Your task to perform on an android device: install app "The Home Depot" Image 0: 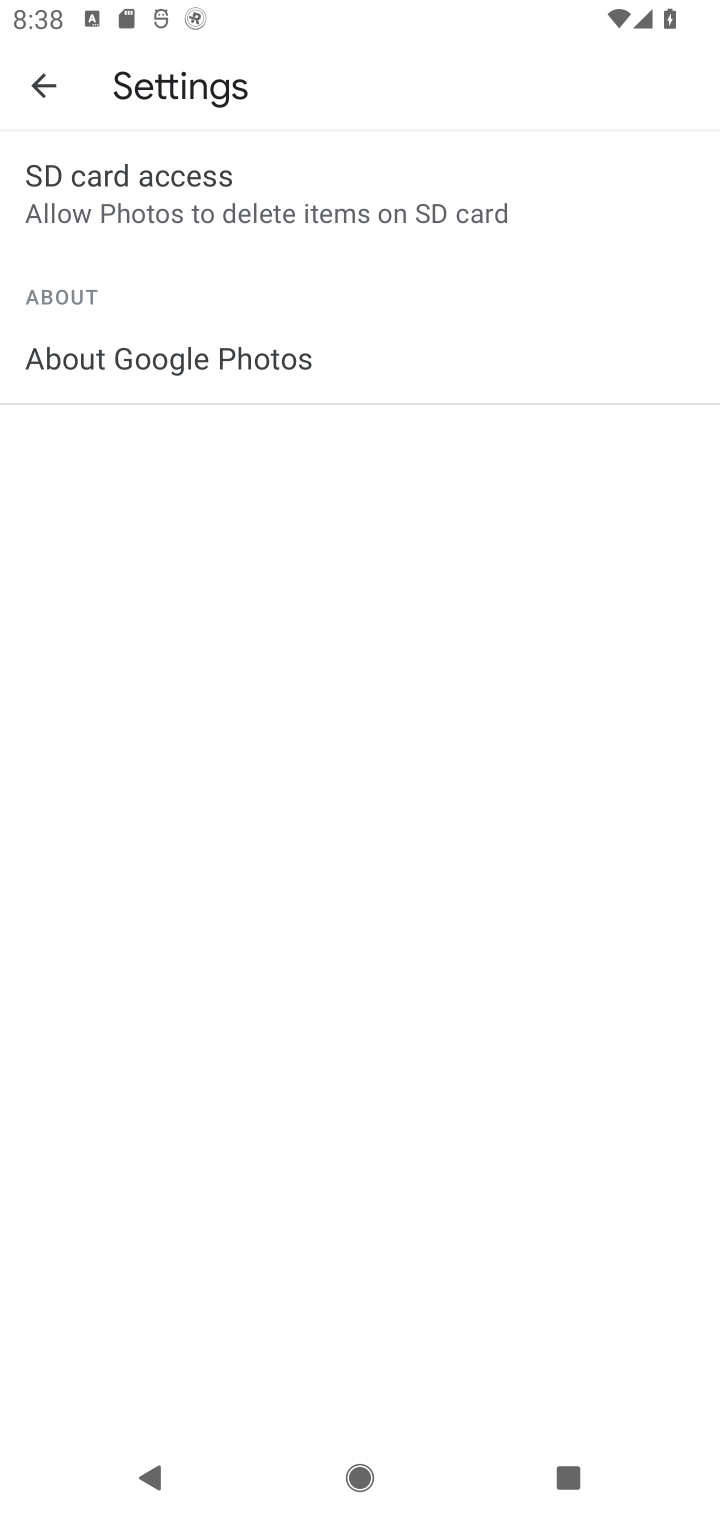
Step 0: click (44, 76)
Your task to perform on an android device: install app "The Home Depot" Image 1: 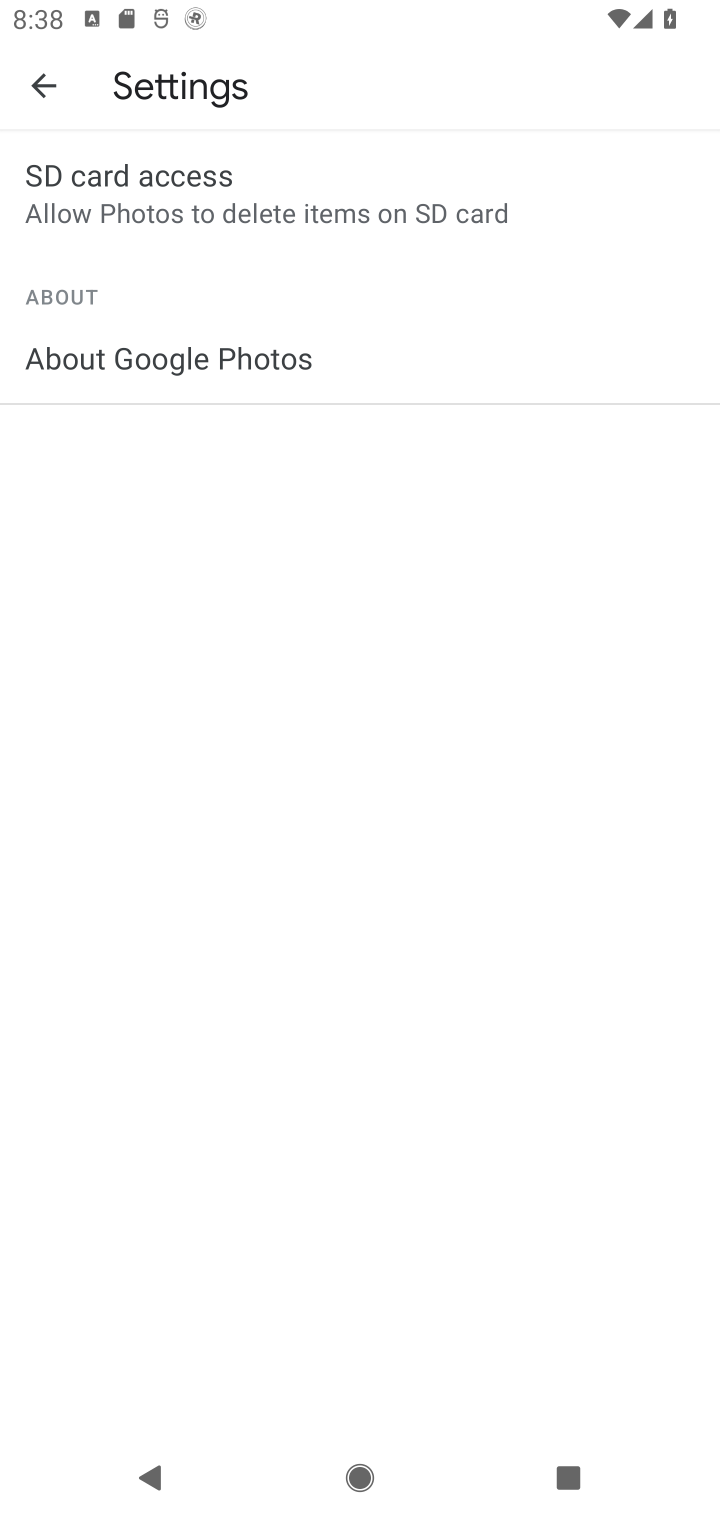
Step 1: press home button
Your task to perform on an android device: install app "The Home Depot" Image 2: 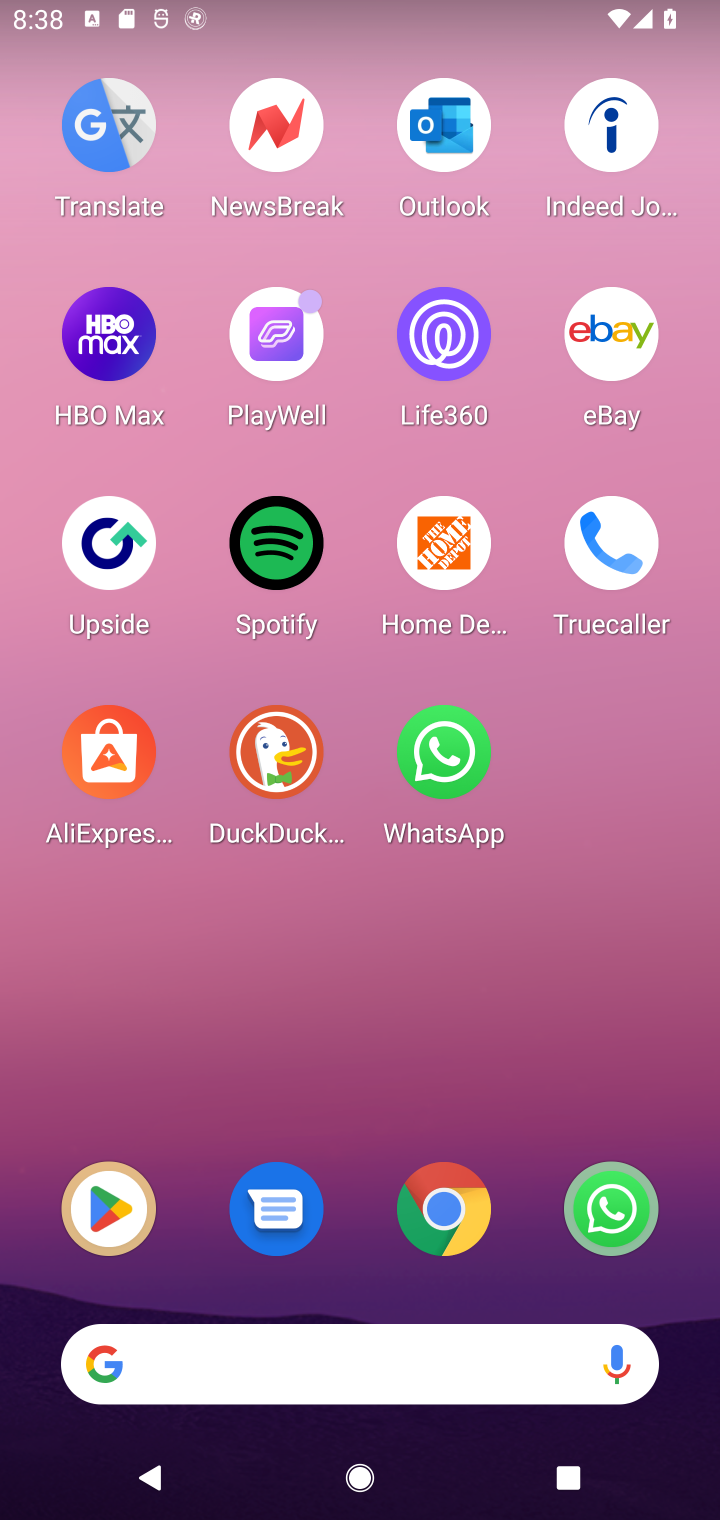
Step 2: click (124, 1224)
Your task to perform on an android device: install app "The Home Depot" Image 3: 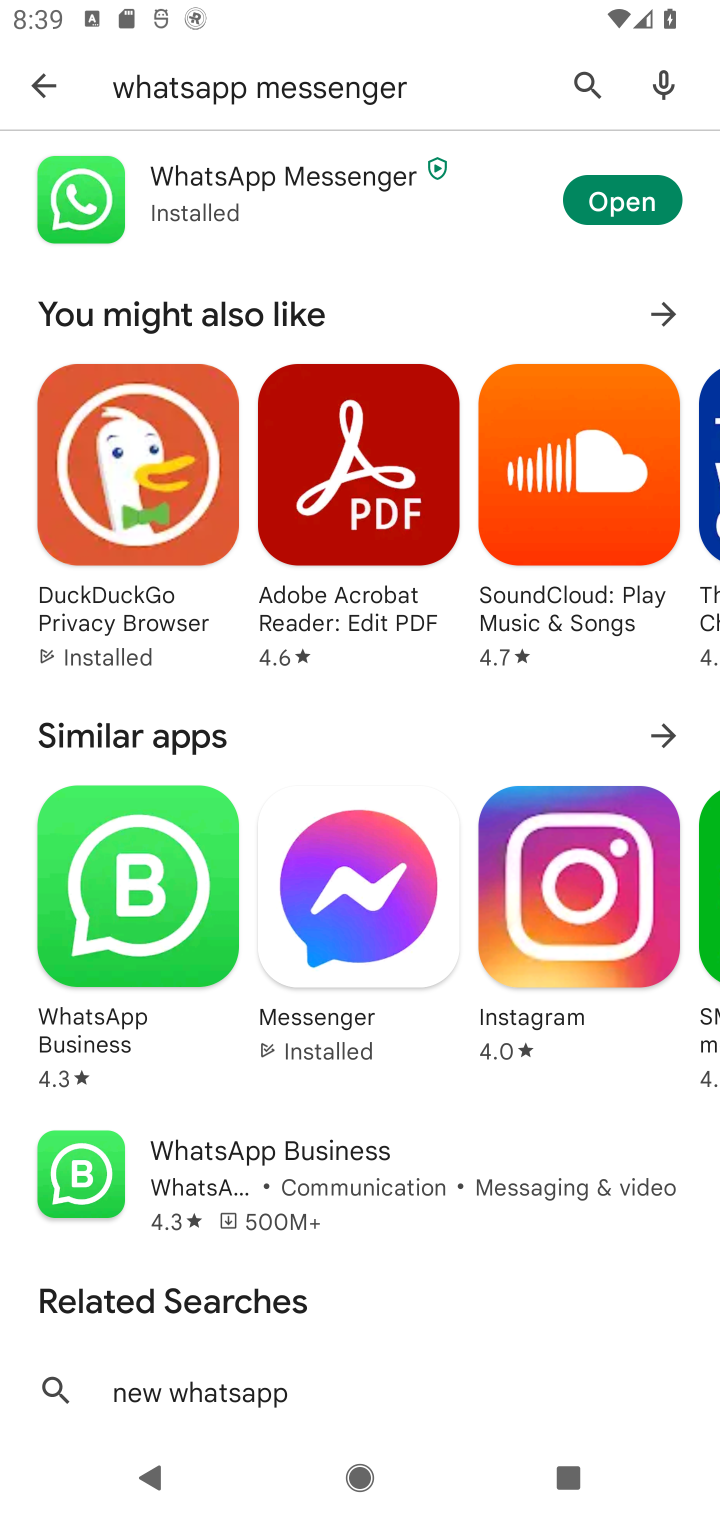
Step 3: click (579, 73)
Your task to perform on an android device: install app "The Home Depot" Image 4: 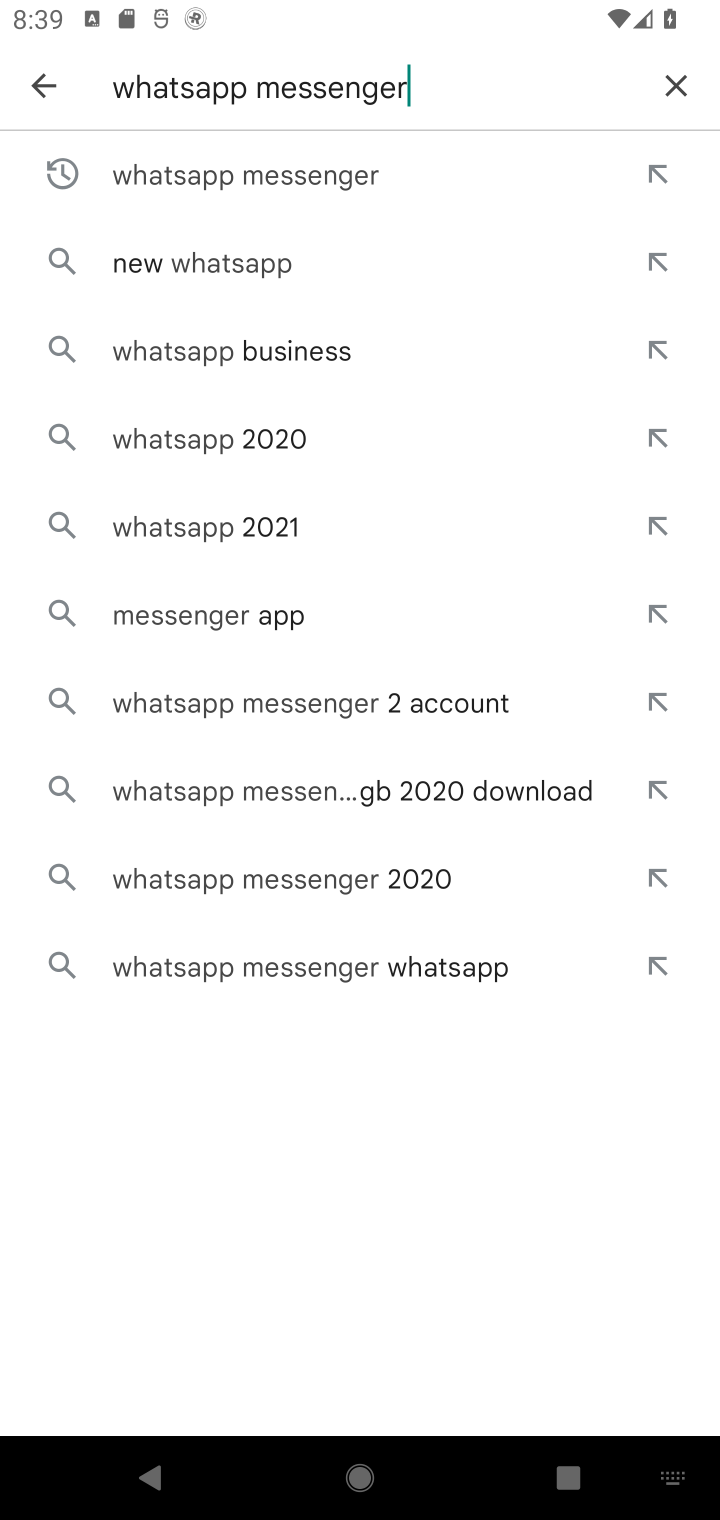
Step 4: click (673, 82)
Your task to perform on an android device: install app "The Home Depot" Image 5: 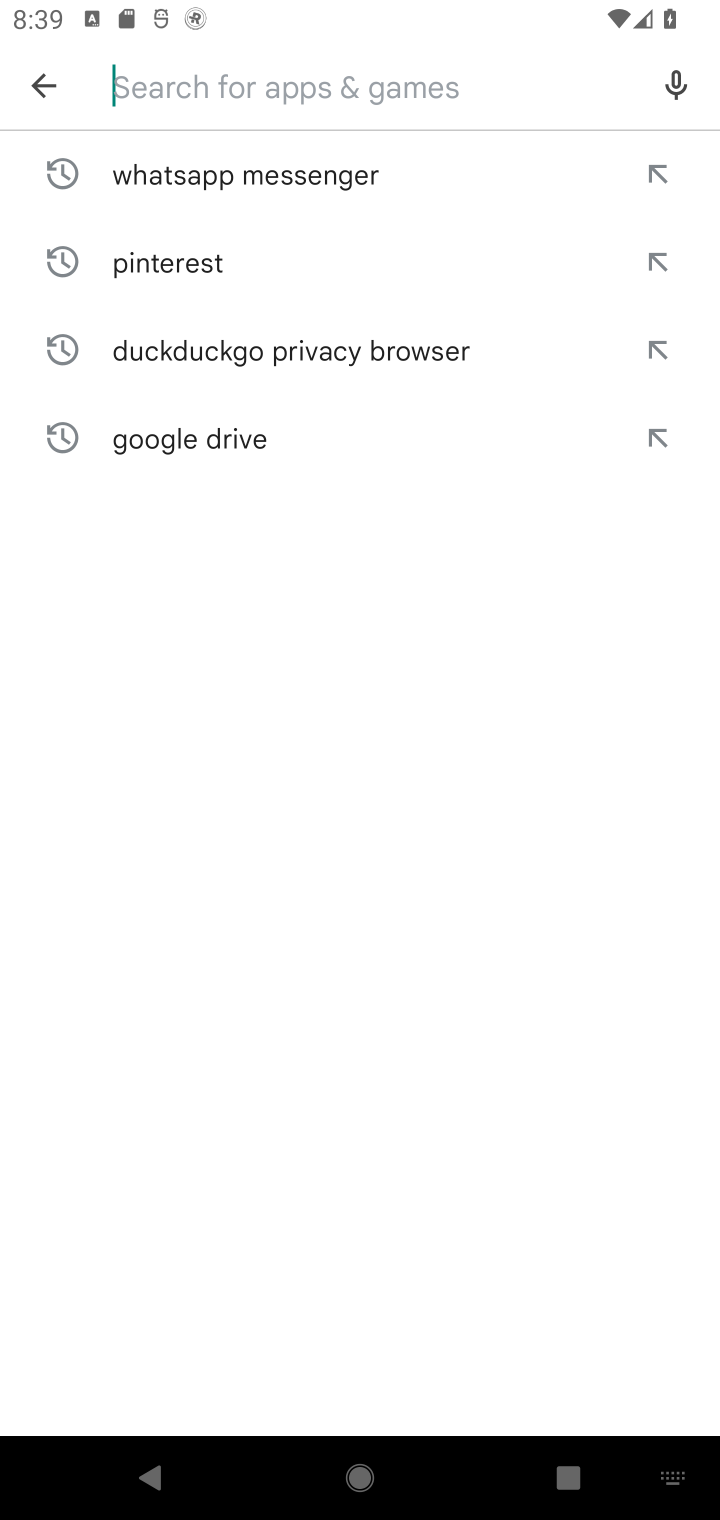
Step 5: type "The Home Depot"
Your task to perform on an android device: install app "The Home Depot" Image 6: 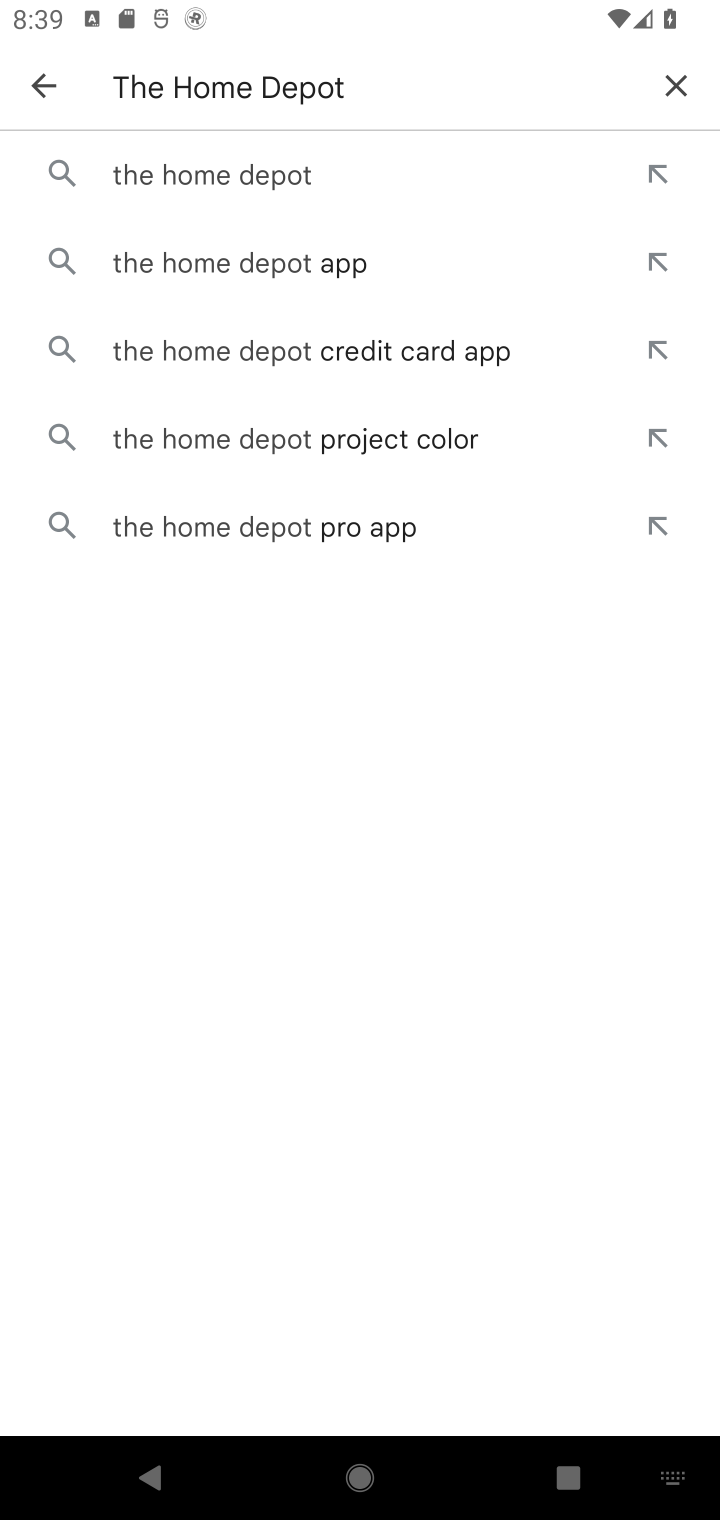
Step 6: click (221, 181)
Your task to perform on an android device: install app "The Home Depot" Image 7: 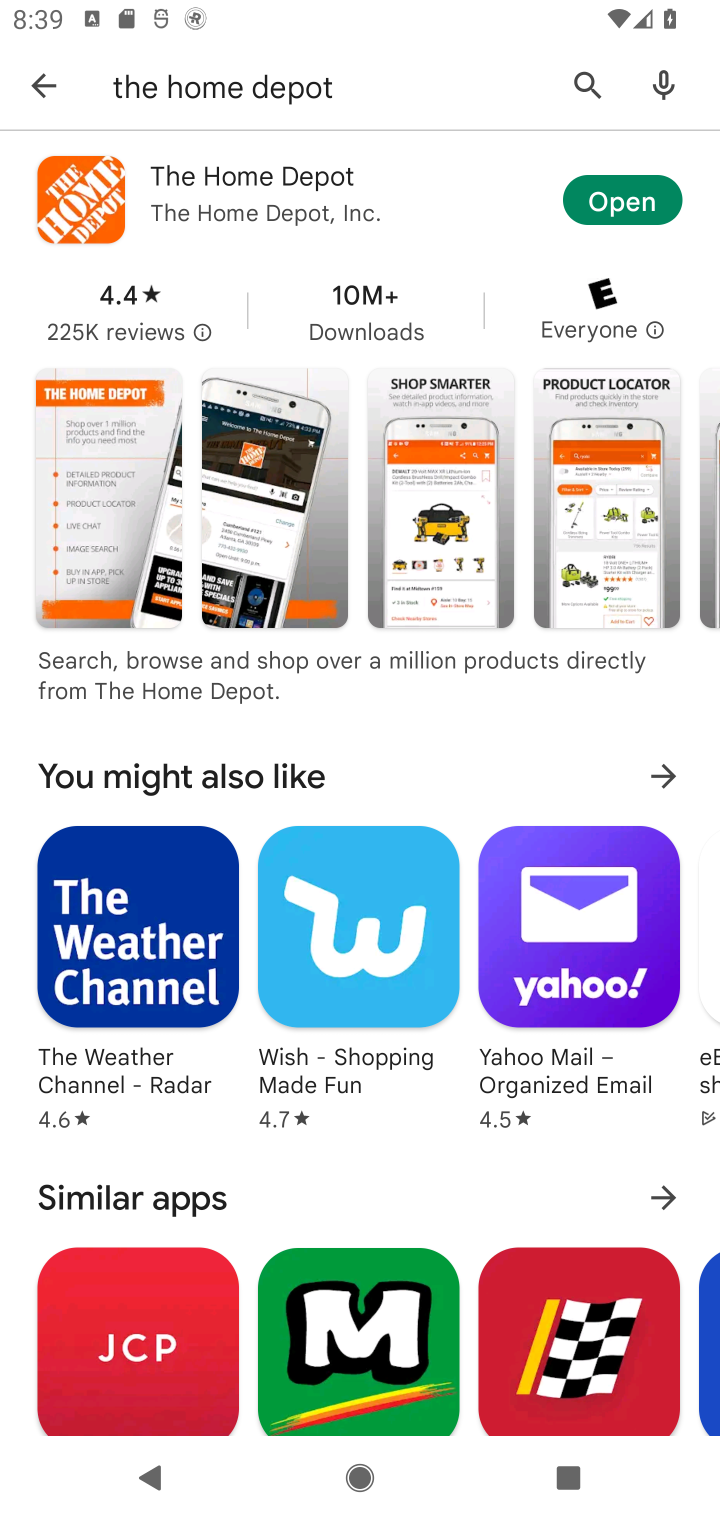
Step 7: task complete